Your task to perform on an android device: Open Maps and search for coffee Image 0: 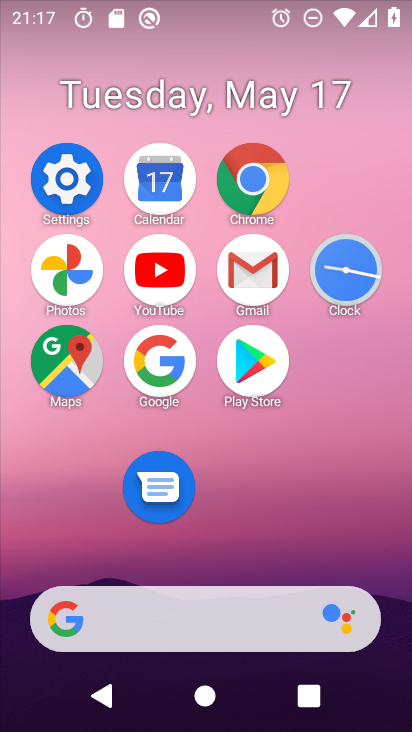
Step 0: click (48, 361)
Your task to perform on an android device: Open Maps and search for coffee Image 1: 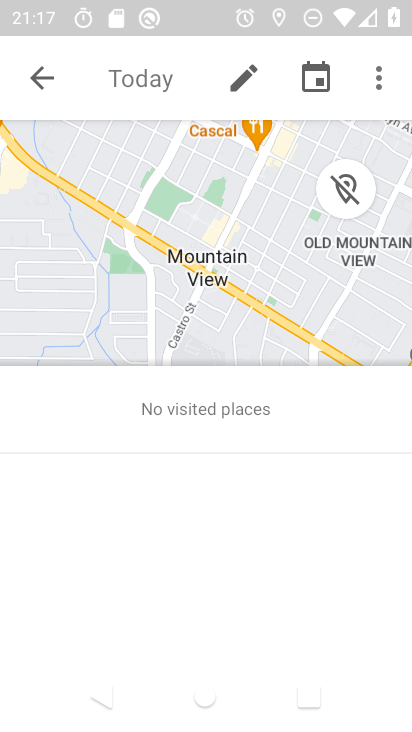
Step 1: click (111, 79)
Your task to perform on an android device: Open Maps and search for coffee Image 2: 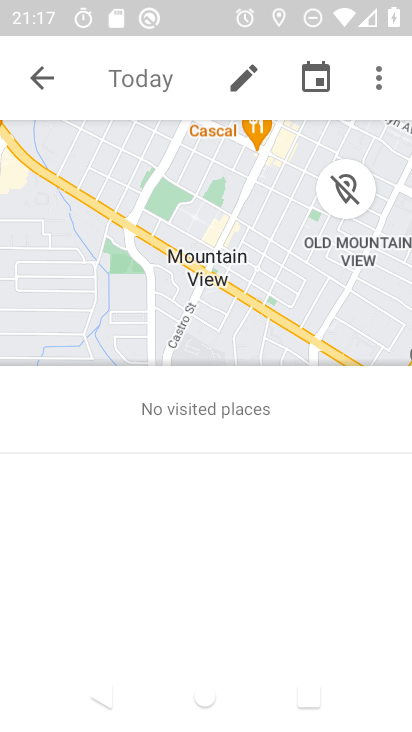
Step 2: click (56, 71)
Your task to perform on an android device: Open Maps and search for coffee Image 3: 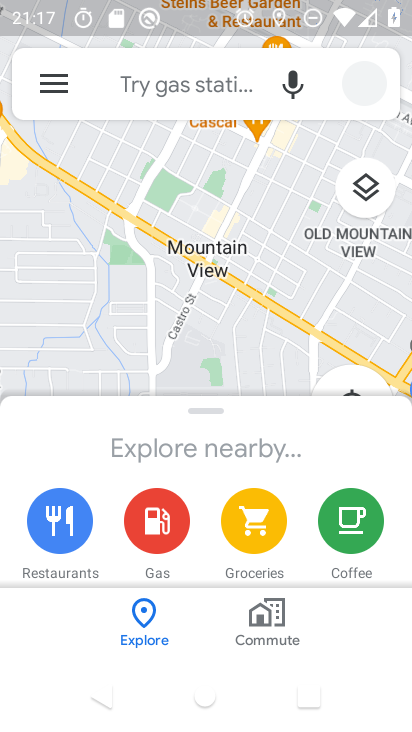
Step 3: click (171, 88)
Your task to perform on an android device: Open Maps and search for coffee Image 4: 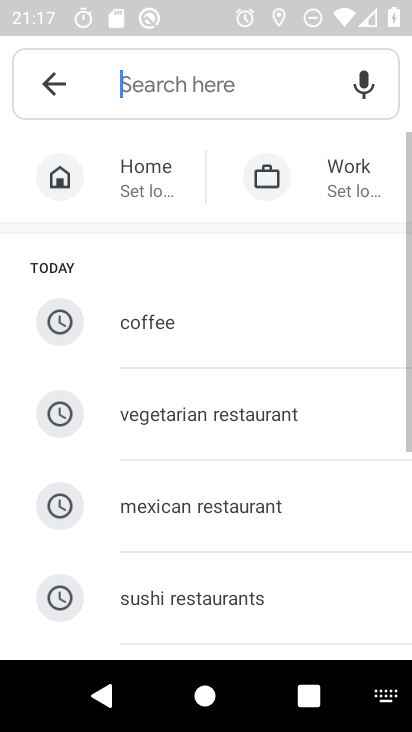
Step 4: click (184, 331)
Your task to perform on an android device: Open Maps and search for coffee Image 5: 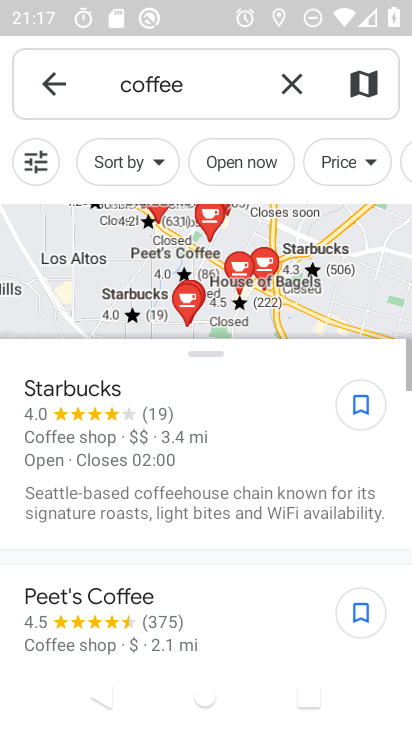
Step 5: task complete